Your task to perform on an android device: Search for sushi restaurants on Maps Image 0: 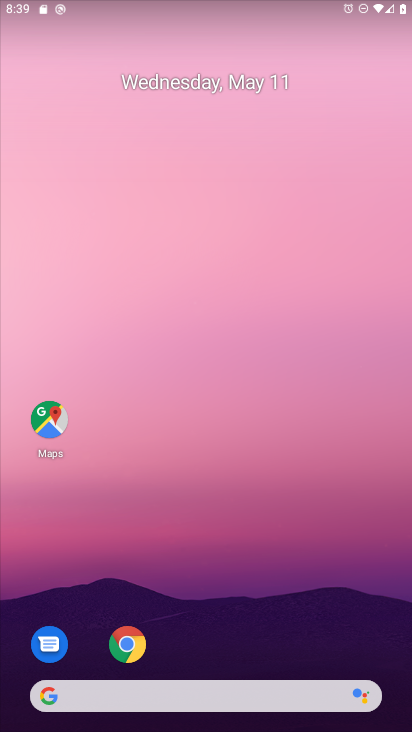
Step 0: click (47, 426)
Your task to perform on an android device: Search for sushi restaurants on Maps Image 1: 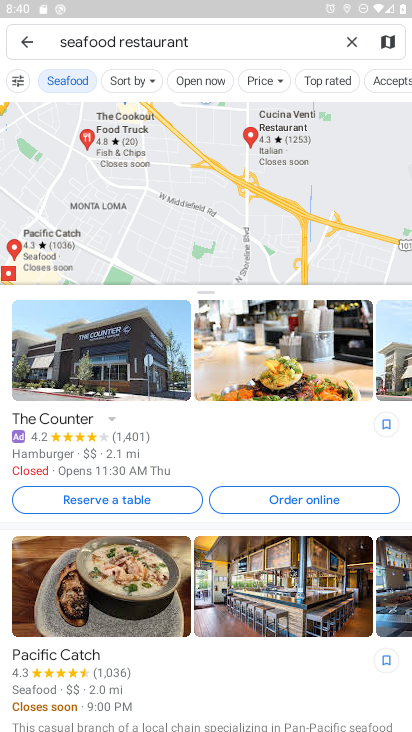
Step 1: click (347, 38)
Your task to perform on an android device: Search for sushi restaurants on Maps Image 2: 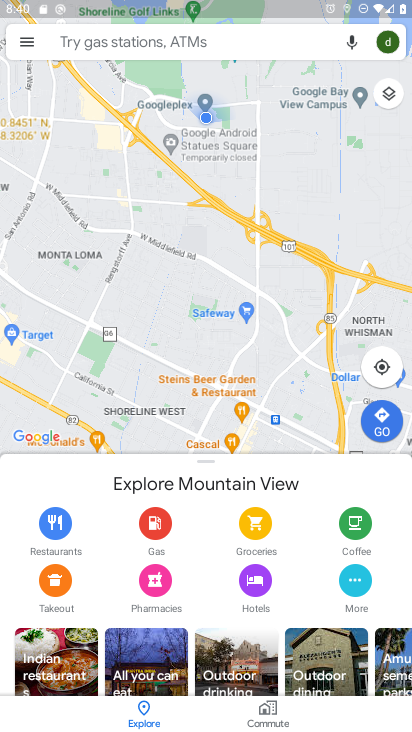
Step 2: click (135, 44)
Your task to perform on an android device: Search for sushi restaurants on Maps Image 3: 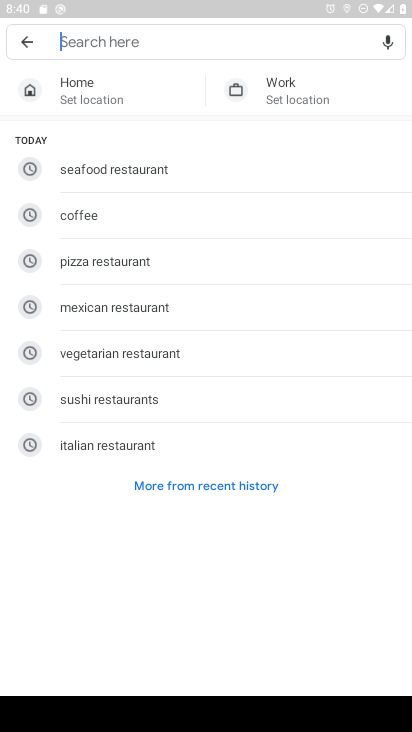
Step 3: click (135, 398)
Your task to perform on an android device: Search for sushi restaurants on Maps Image 4: 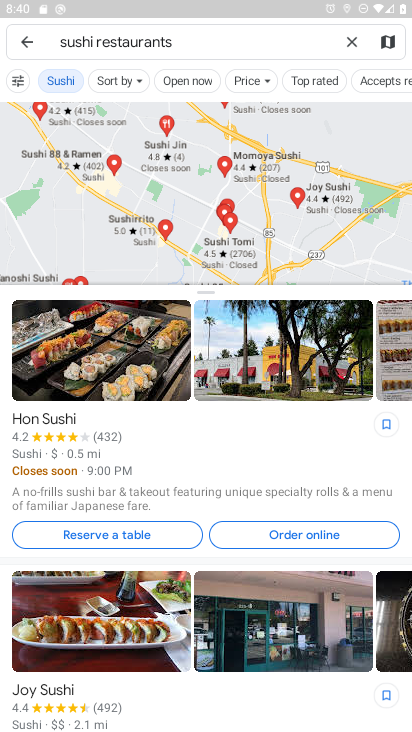
Step 4: task complete